Your task to perform on an android device: toggle javascript in the chrome app Image 0: 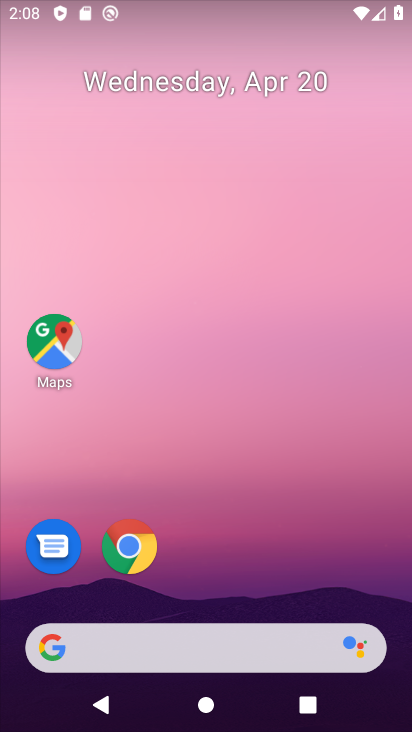
Step 0: click (118, 550)
Your task to perform on an android device: toggle javascript in the chrome app Image 1: 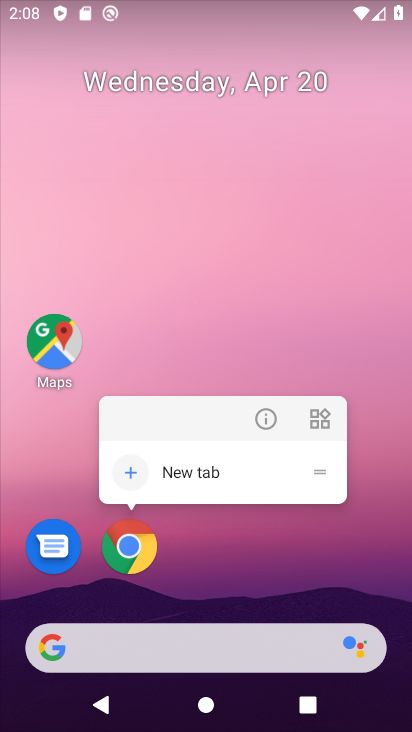
Step 1: click (119, 549)
Your task to perform on an android device: toggle javascript in the chrome app Image 2: 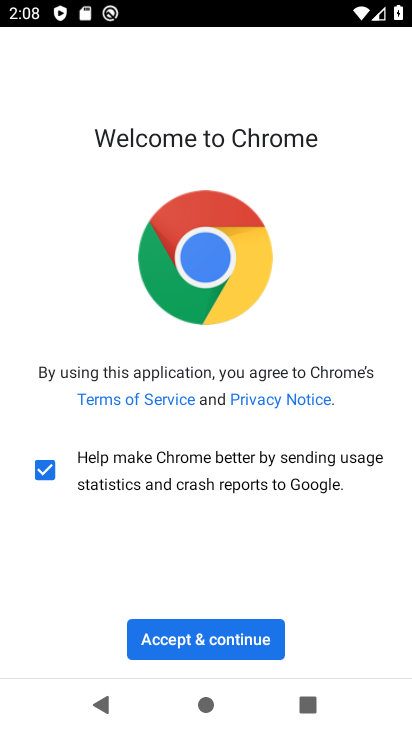
Step 2: click (266, 644)
Your task to perform on an android device: toggle javascript in the chrome app Image 3: 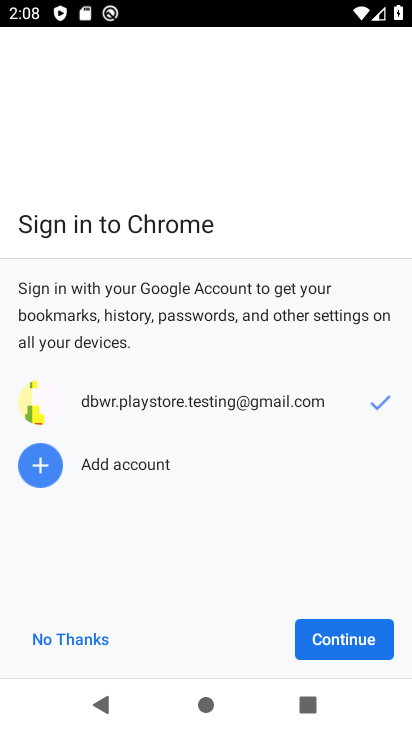
Step 3: click (324, 646)
Your task to perform on an android device: toggle javascript in the chrome app Image 4: 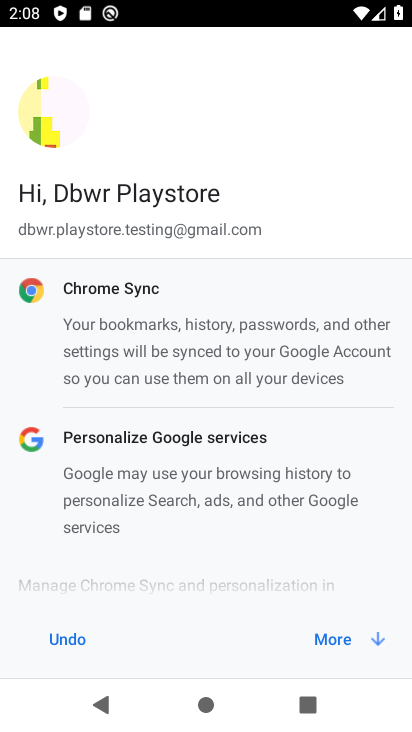
Step 4: click (327, 644)
Your task to perform on an android device: toggle javascript in the chrome app Image 5: 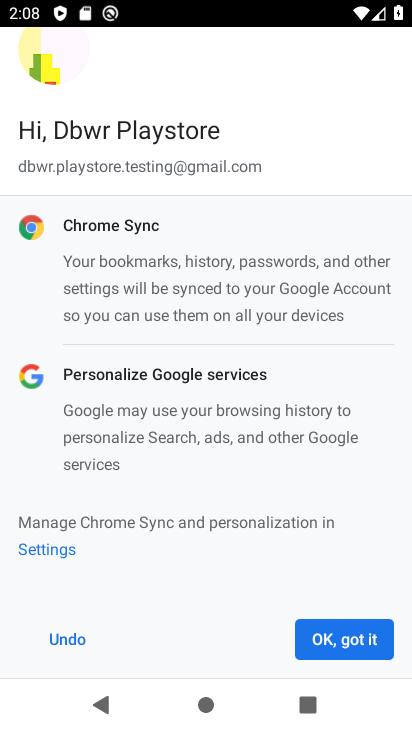
Step 5: click (345, 644)
Your task to perform on an android device: toggle javascript in the chrome app Image 6: 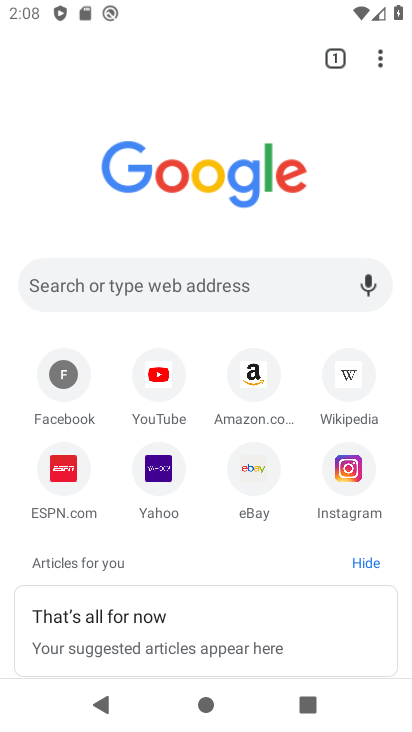
Step 6: drag from (384, 68) to (268, 510)
Your task to perform on an android device: toggle javascript in the chrome app Image 7: 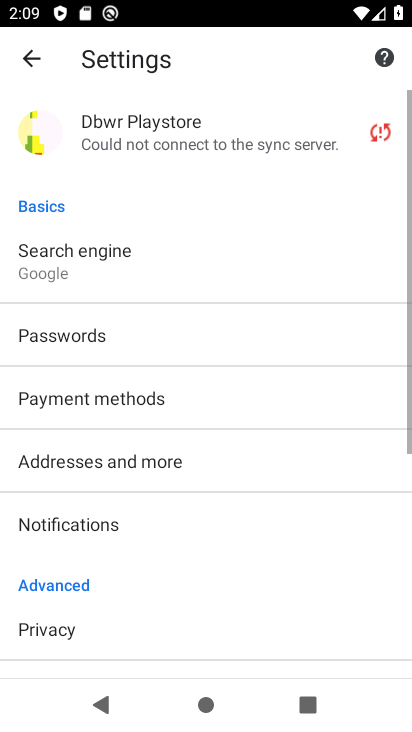
Step 7: drag from (199, 629) to (328, 241)
Your task to perform on an android device: toggle javascript in the chrome app Image 8: 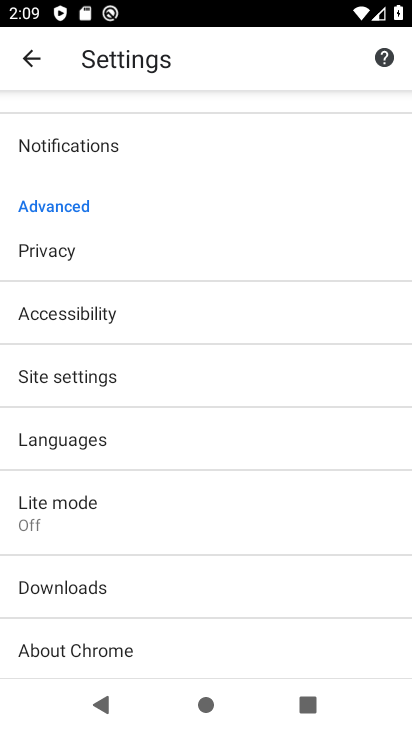
Step 8: click (181, 382)
Your task to perform on an android device: toggle javascript in the chrome app Image 9: 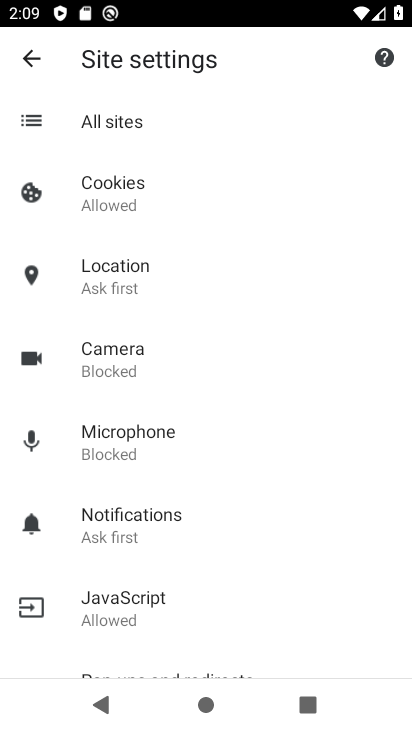
Step 9: click (185, 599)
Your task to perform on an android device: toggle javascript in the chrome app Image 10: 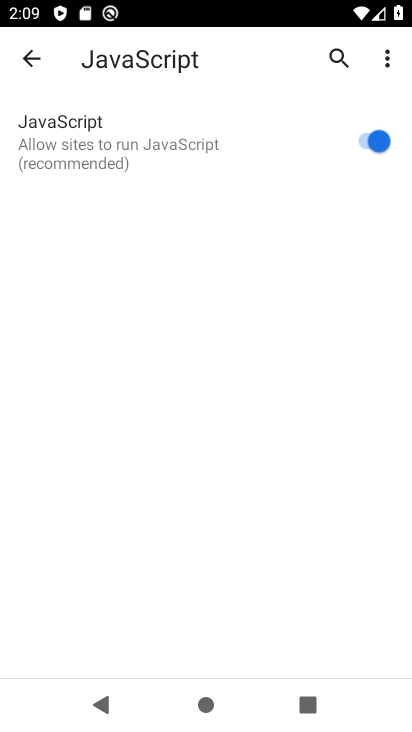
Step 10: click (360, 138)
Your task to perform on an android device: toggle javascript in the chrome app Image 11: 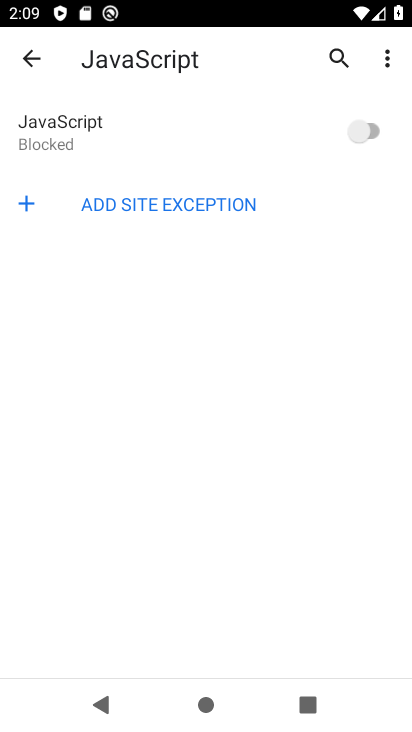
Step 11: task complete